Your task to perform on an android device: toggle wifi Image 0: 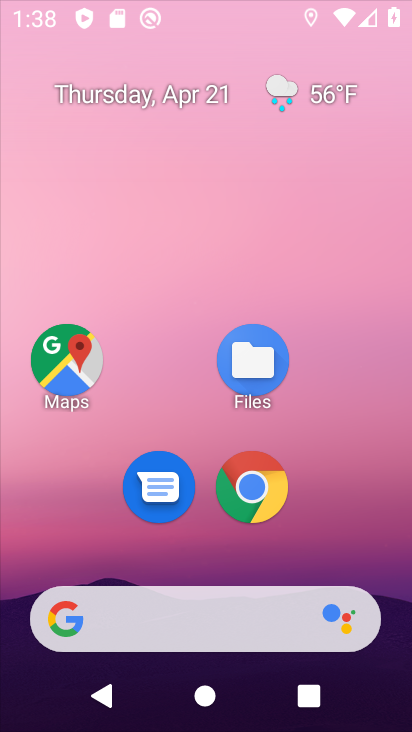
Step 0: click (368, 136)
Your task to perform on an android device: toggle wifi Image 1: 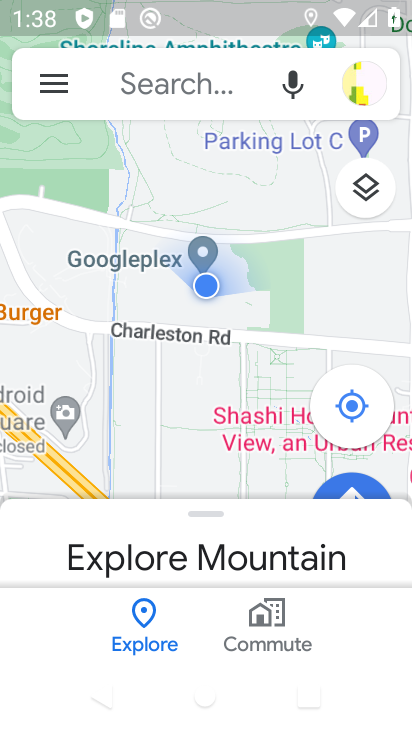
Step 1: press home button
Your task to perform on an android device: toggle wifi Image 2: 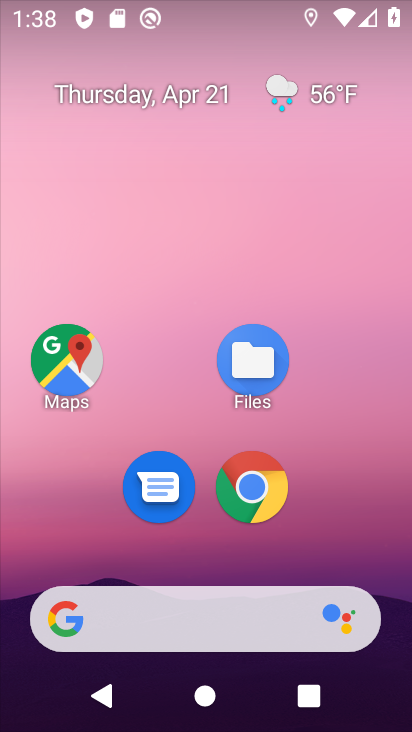
Step 2: drag from (349, 466) to (335, 152)
Your task to perform on an android device: toggle wifi Image 3: 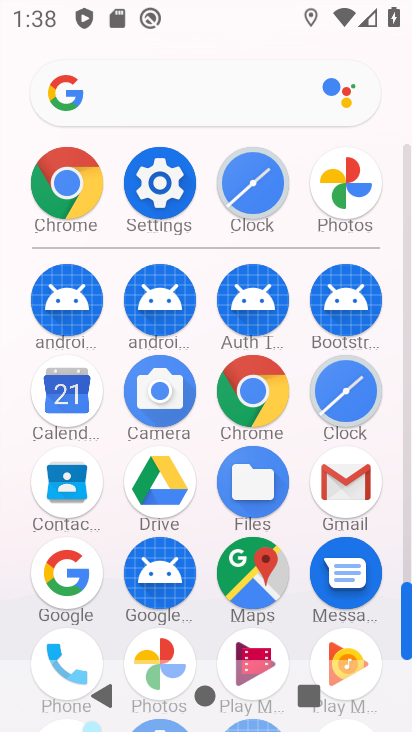
Step 3: click (168, 182)
Your task to perform on an android device: toggle wifi Image 4: 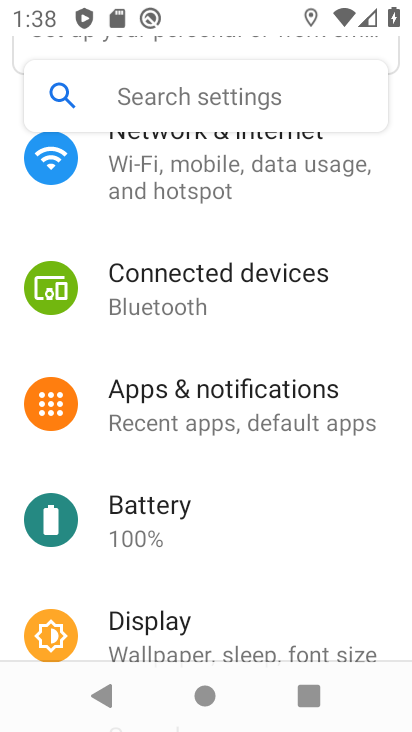
Step 4: drag from (300, 266) to (284, 476)
Your task to perform on an android device: toggle wifi Image 5: 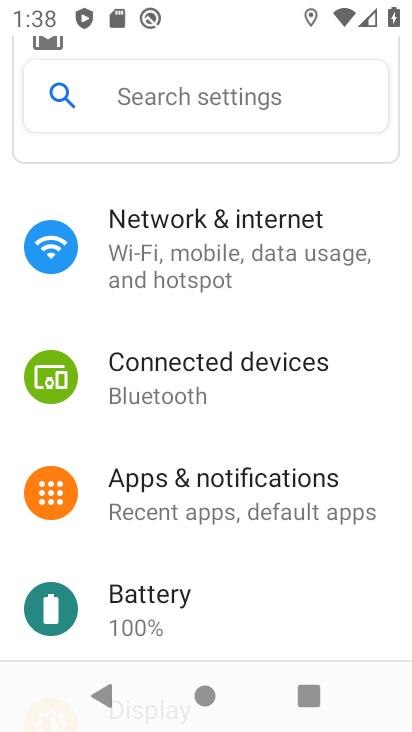
Step 5: click (252, 247)
Your task to perform on an android device: toggle wifi Image 6: 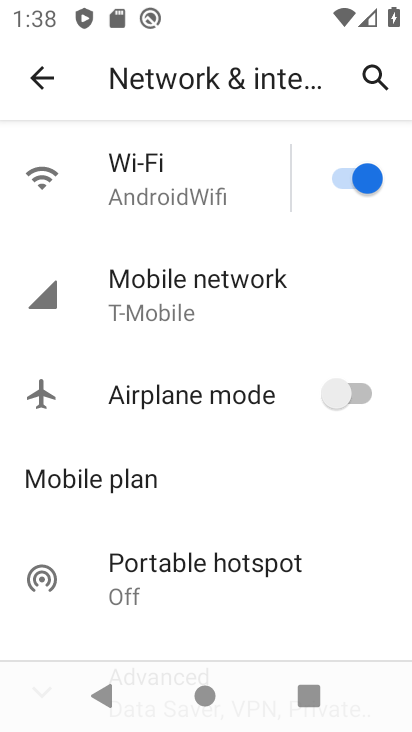
Step 6: click (344, 185)
Your task to perform on an android device: toggle wifi Image 7: 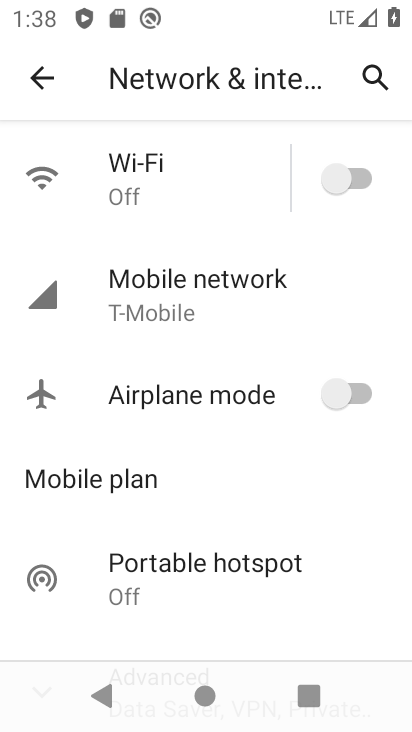
Step 7: task complete